Your task to perform on an android device: open app "Google Pay: Save, Pay, Manage" (install if not already installed) Image 0: 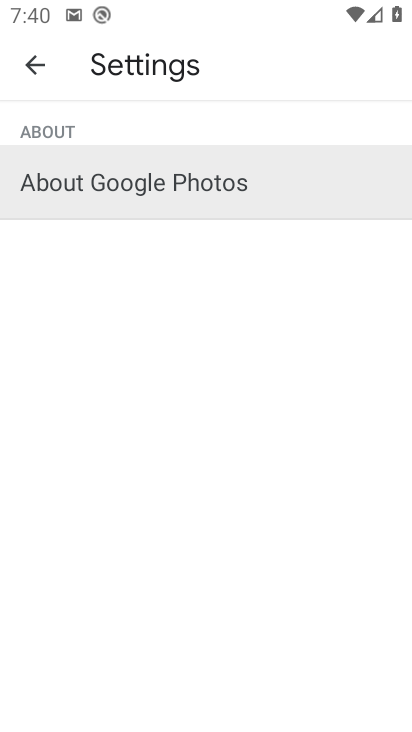
Step 0: press home button
Your task to perform on an android device: open app "Google Pay: Save, Pay, Manage" (install if not already installed) Image 1: 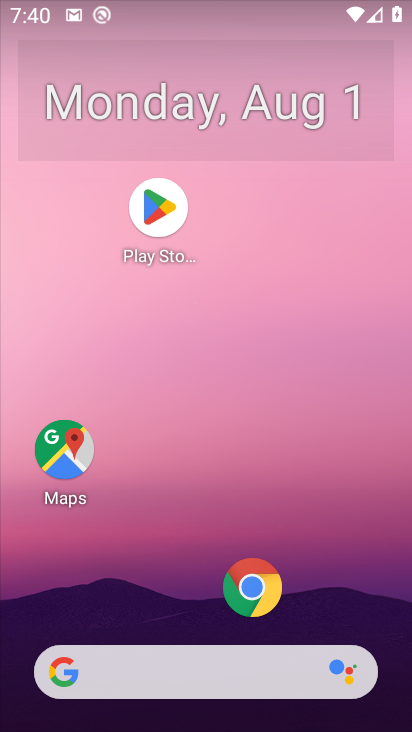
Step 1: click (145, 223)
Your task to perform on an android device: open app "Google Pay: Save, Pay, Manage" (install if not already installed) Image 2: 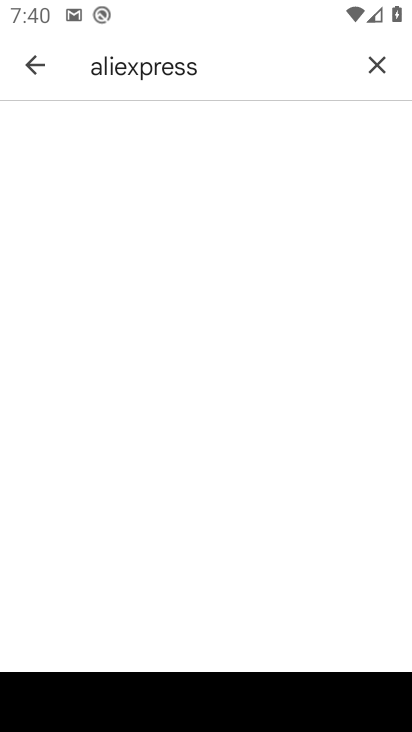
Step 2: click (373, 77)
Your task to perform on an android device: open app "Google Pay: Save, Pay, Manage" (install if not already installed) Image 3: 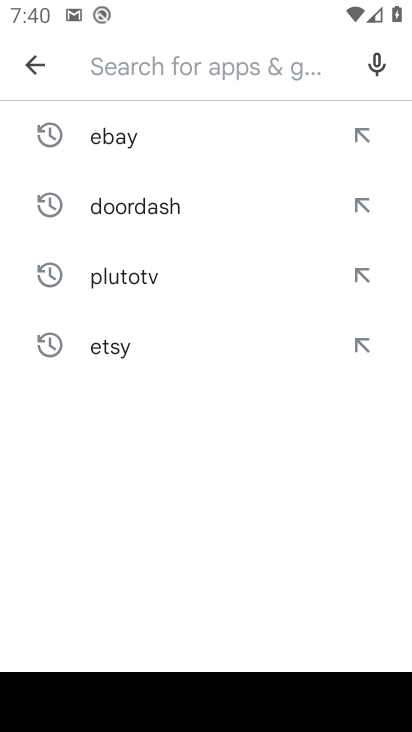
Step 3: type "google pay"
Your task to perform on an android device: open app "Google Pay: Save, Pay, Manage" (install if not already installed) Image 4: 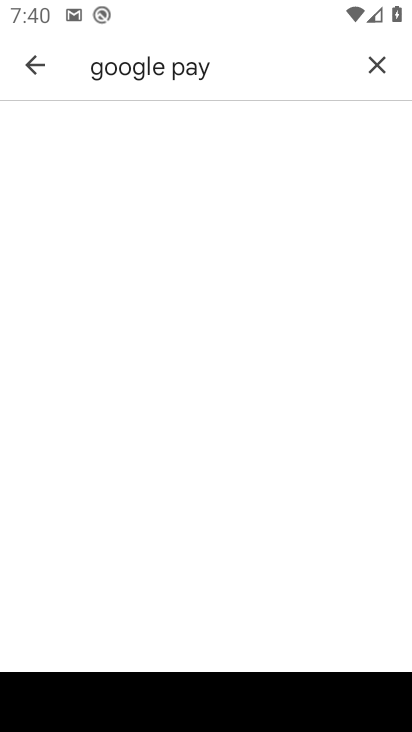
Step 4: click (25, 62)
Your task to perform on an android device: open app "Google Pay: Save, Pay, Manage" (install if not already installed) Image 5: 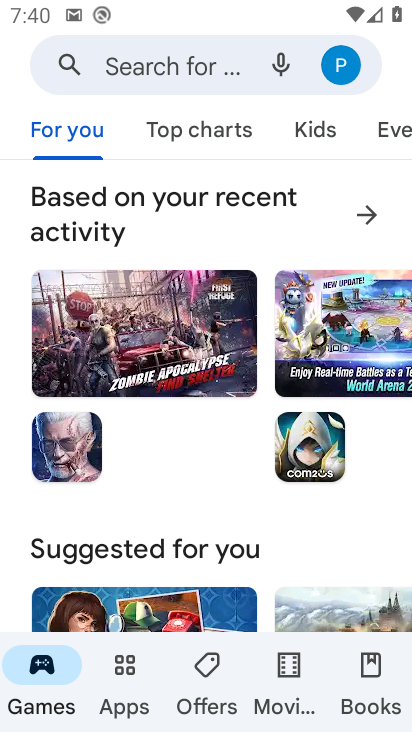
Step 5: click (121, 86)
Your task to perform on an android device: open app "Google Pay: Save, Pay, Manage" (install if not already installed) Image 6: 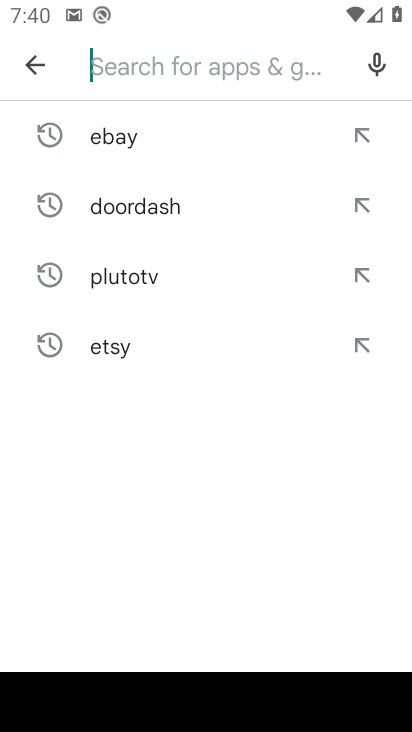
Step 6: click (44, 63)
Your task to perform on an android device: open app "Google Pay: Save, Pay, Manage" (install if not already installed) Image 7: 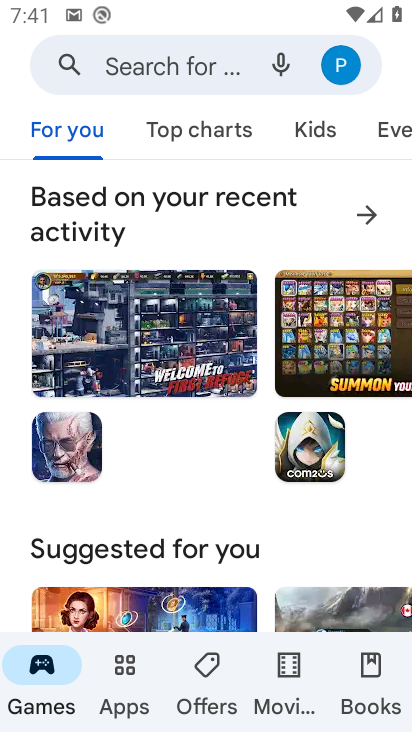
Step 7: click (133, 679)
Your task to perform on an android device: open app "Google Pay: Save, Pay, Manage" (install if not already installed) Image 8: 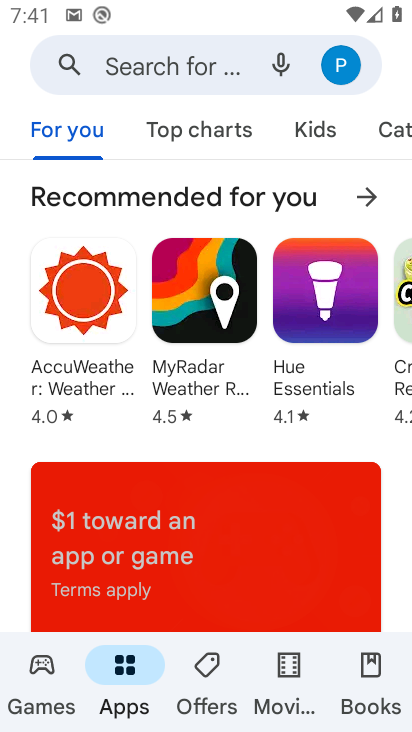
Step 8: click (152, 56)
Your task to perform on an android device: open app "Google Pay: Save, Pay, Manage" (install if not already installed) Image 9: 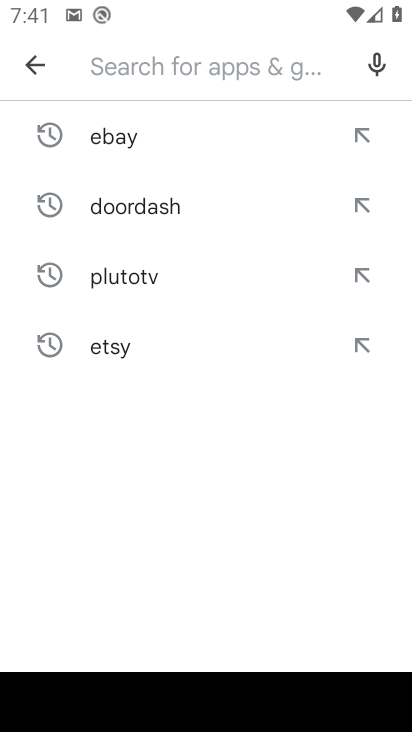
Step 9: type "google pay"
Your task to perform on an android device: open app "Google Pay: Save, Pay, Manage" (install if not already installed) Image 10: 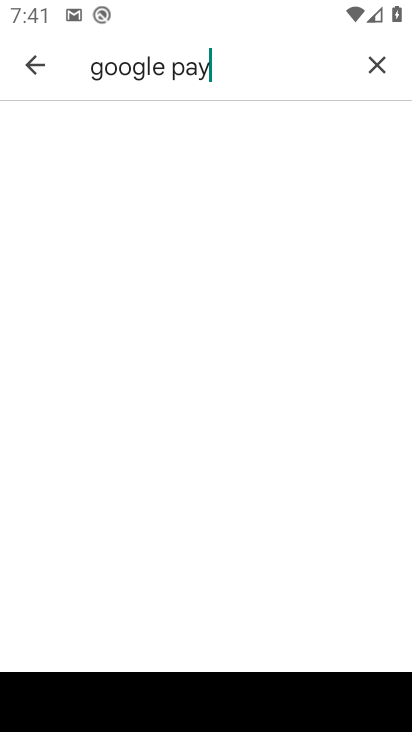
Step 10: task complete